Your task to perform on an android device: turn on the 24-hour format for clock Image 0: 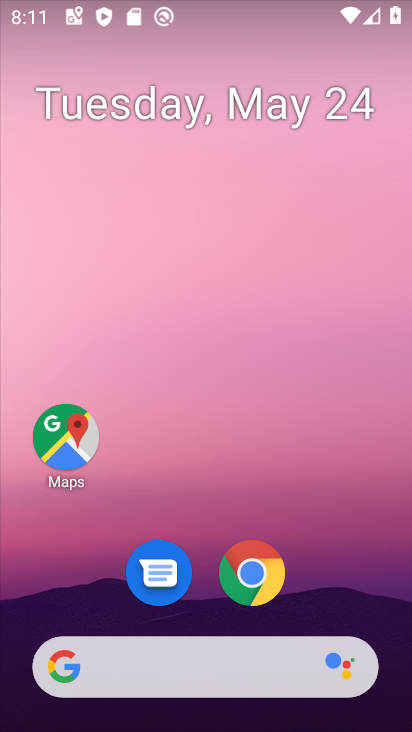
Step 0: drag from (313, 613) to (392, 69)
Your task to perform on an android device: turn on the 24-hour format for clock Image 1: 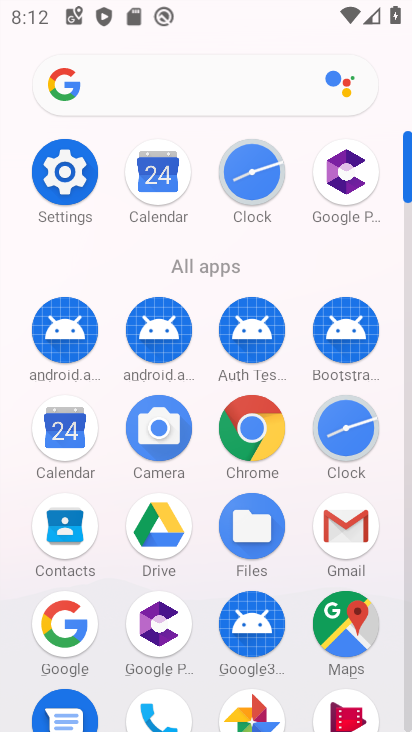
Step 1: click (333, 429)
Your task to perform on an android device: turn on the 24-hour format for clock Image 2: 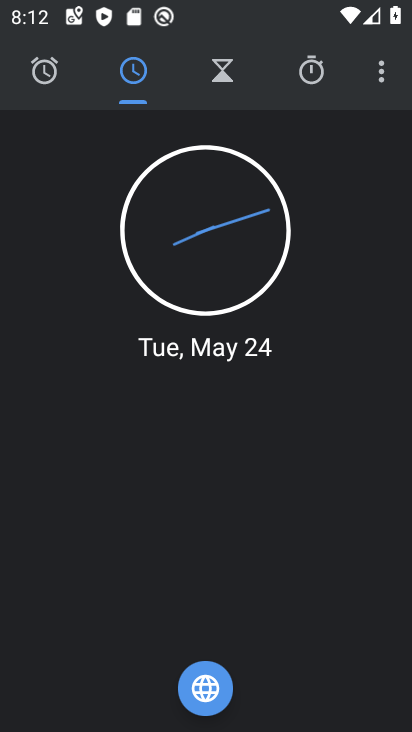
Step 2: click (367, 71)
Your task to perform on an android device: turn on the 24-hour format for clock Image 3: 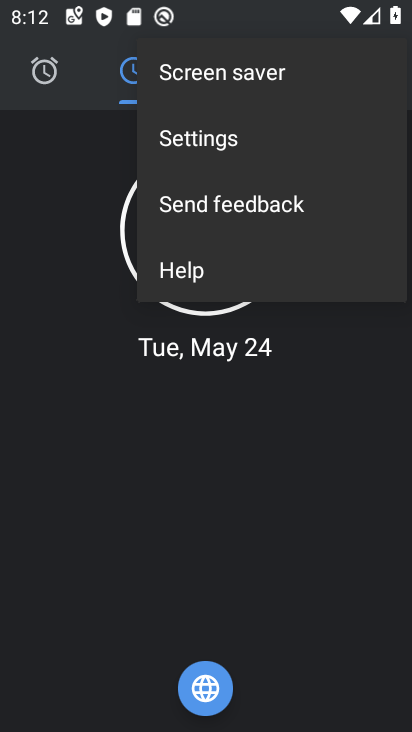
Step 3: click (204, 140)
Your task to perform on an android device: turn on the 24-hour format for clock Image 4: 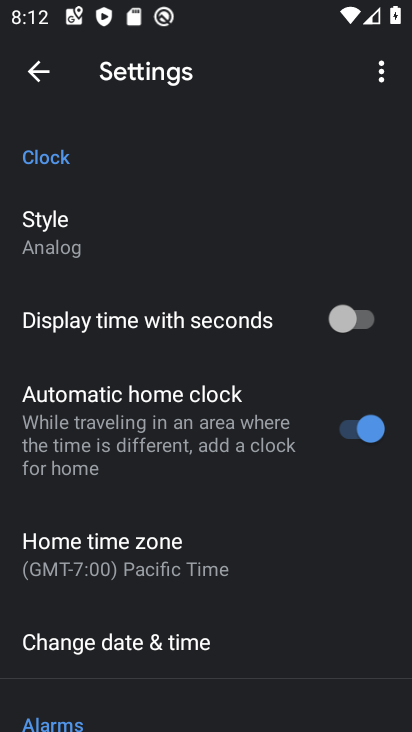
Step 4: click (168, 651)
Your task to perform on an android device: turn on the 24-hour format for clock Image 5: 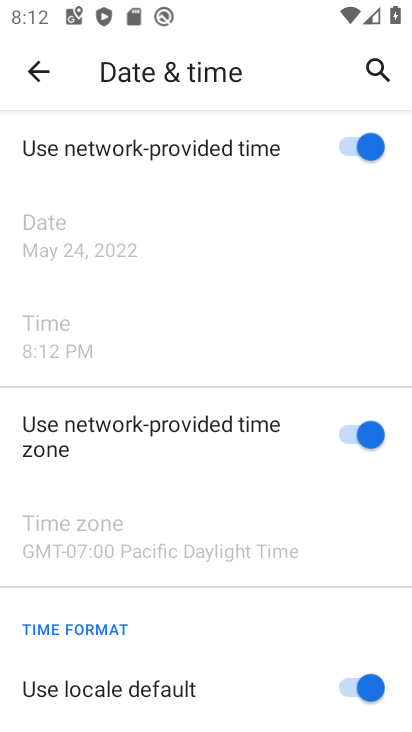
Step 5: drag from (185, 360) to (194, 295)
Your task to perform on an android device: turn on the 24-hour format for clock Image 6: 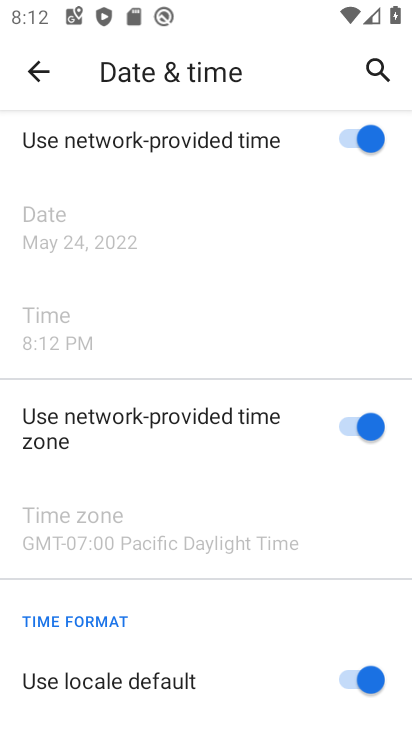
Step 6: drag from (209, 626) to (245, 196)
Your task to perform on an android device: turn on the 24-hour format for clock Image 7: 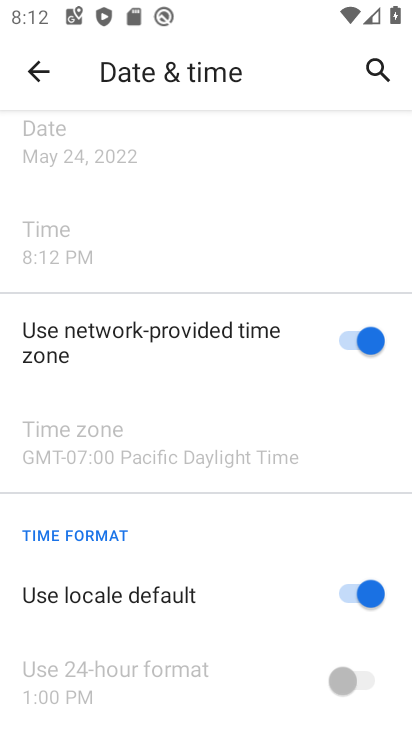
Step 7: click (362, 604)
Your task to perform on an android device: turn on the 24-hour format for clock Image 8: 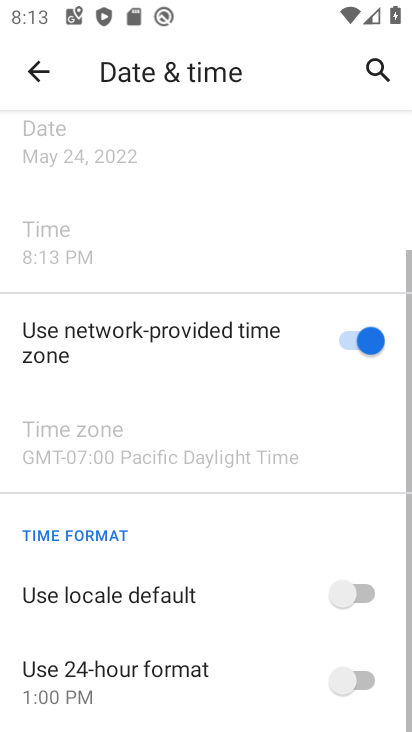
Step 8: click (356, 687)
Your task to perform on an android device: turn on the 24-hour format for clock Image 9: 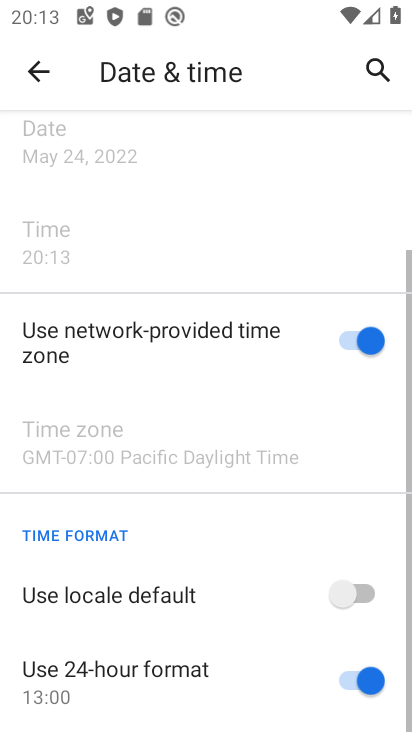
Step 9: task complete